Your task to perform on an android device: Search for a new eyeshadow Image 0: 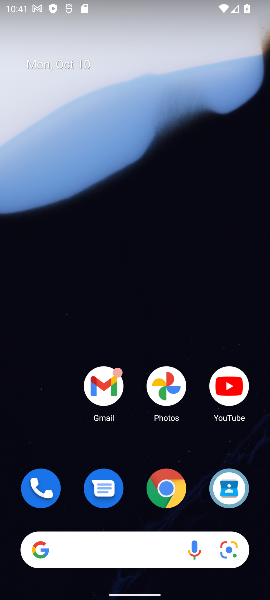
Step 0: drag from (131, 524) to (133, 56)
Your task to perform on an android device: Search for a new eyeshadow Image 1: 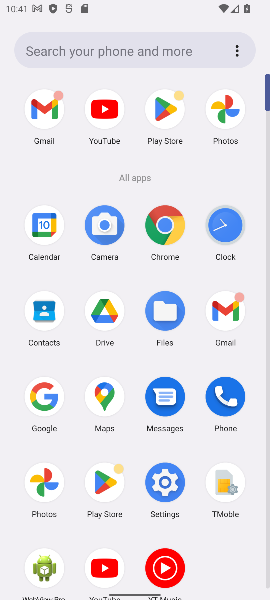
Step 1: click (38, 401)
Your task to perform on an android device: Search for a new eyeshadow Image 2: 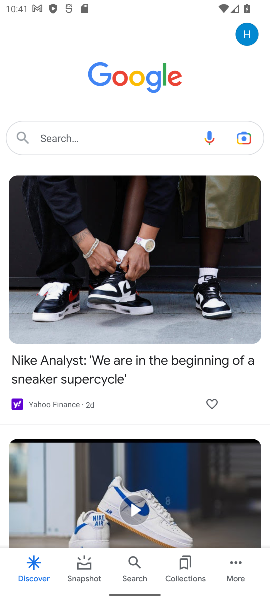
Step 2: click (129, 141)
Your task to perform on an android device: Search for a new eyeshadow Image 3: 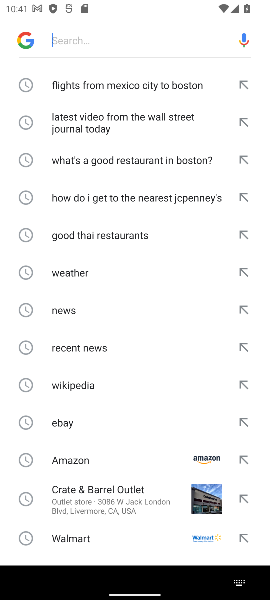
Step 3: type "new eyeshadow"
Your task to perform on an android device: Search for a new eyeshadow Image 4: 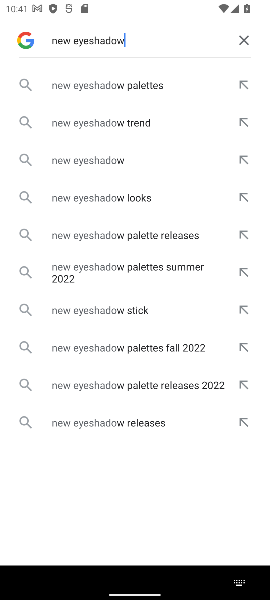
Step 4: type ""
Your task to perform on an android device: Search for a new eyeshadow Image 5: 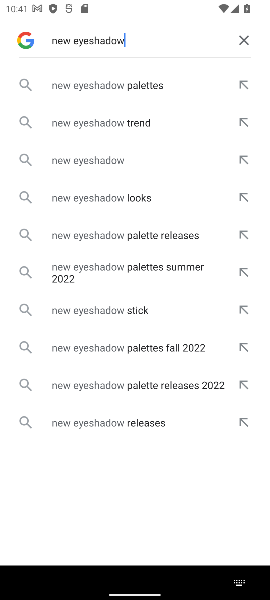
Step 5: click (107, 161)
Your task to perform on an android device: Search for a new eyeshadow Image 6: 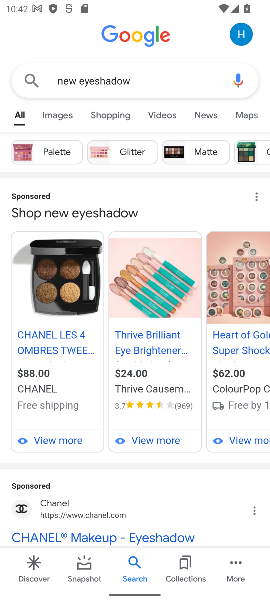
Step 6: task complete